Your task to perform on an android device: Open calendar and show me the second week of next month Image 0: 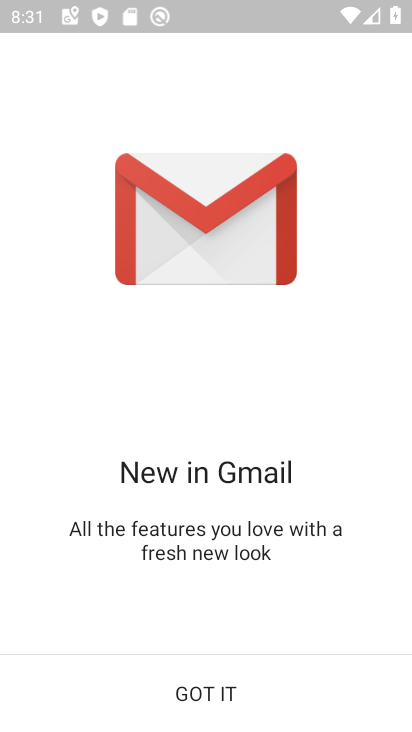
Step 0: press home button
Your task to perform on an android device: Open calendar and show me the second week of next month Image 1: 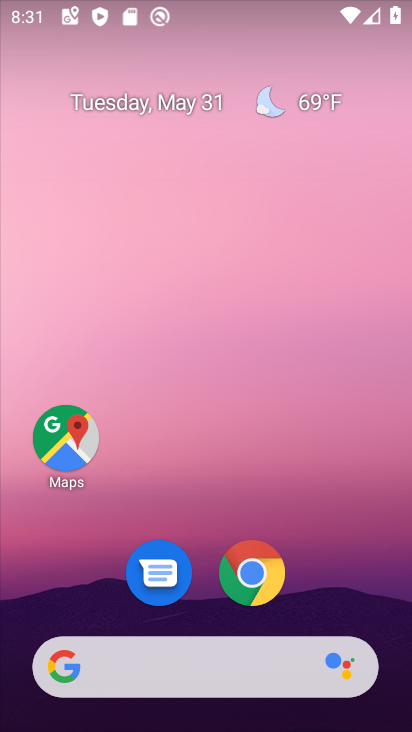
Step 1: drag from (195, 567) to (233, 88)
Your task to perform on an android device: Open calendar and show me the second week of next month Image 2: 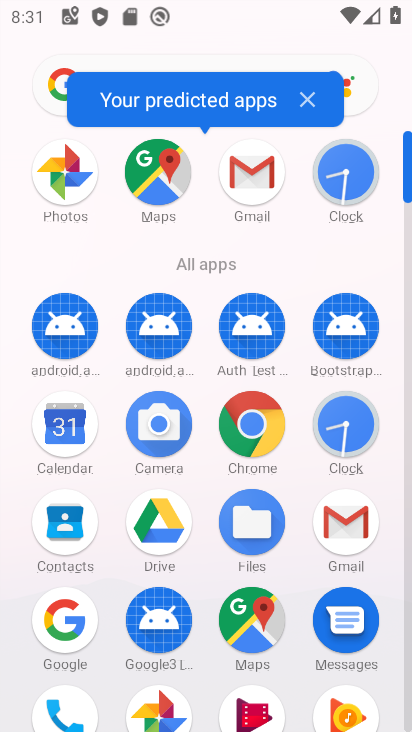
Step 2: click (65, 434)
Your task to perform on an android device: Open calendar and show me the second week of next month Image 3: 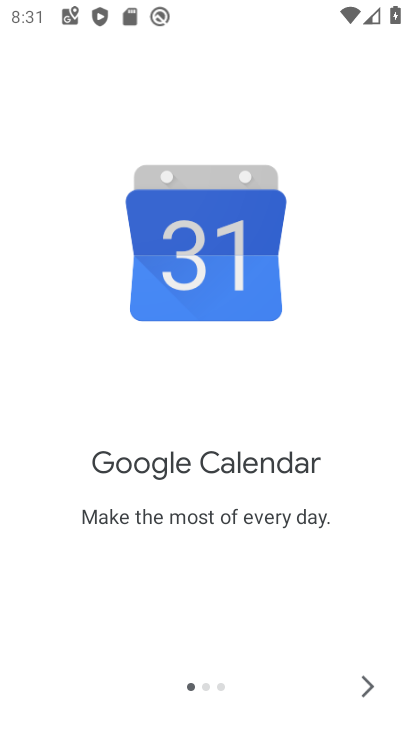
Step 3: click (373, 683)
Your task to perform on an android device: Open calendar and show me the second week of next month Image 4: 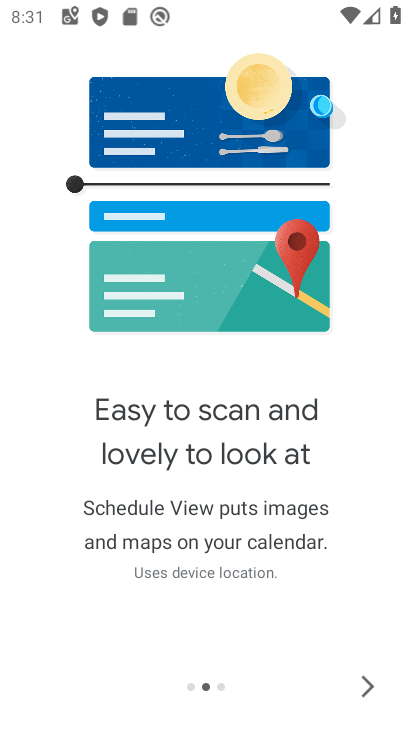
Step 4: click (373, 683)
Your task to perform on an android device: Open calendar and show me the second week of next month Image 5: 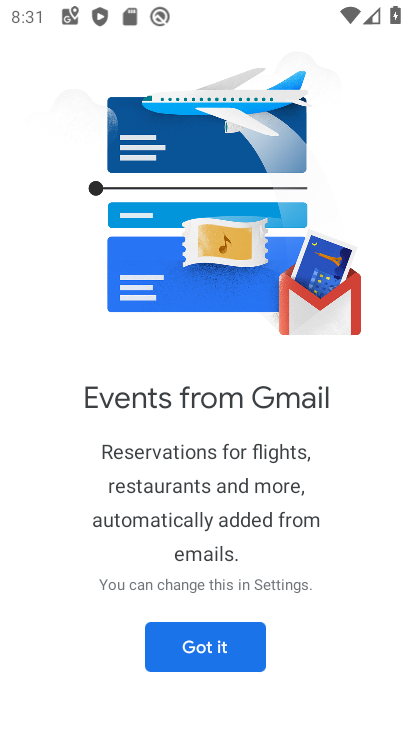
Step 5: click (232, 644)
Your task to perform on an android device: Open calendar and show me the second week of next month Image 6: 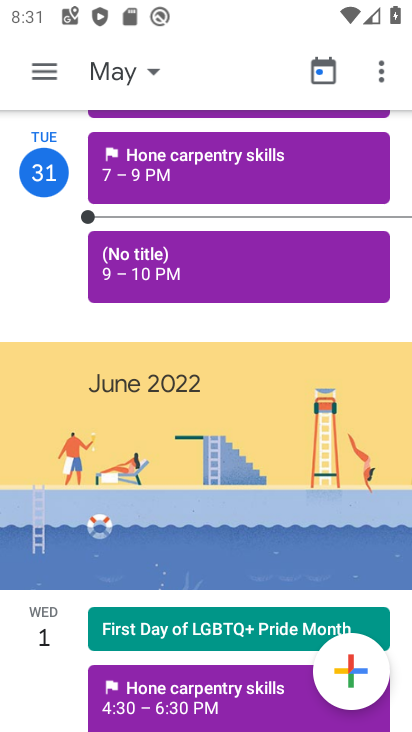
Step 6: click (48, 63)
Your task to perform on an android device: Open calendar and show me the second week of next month Image 7: 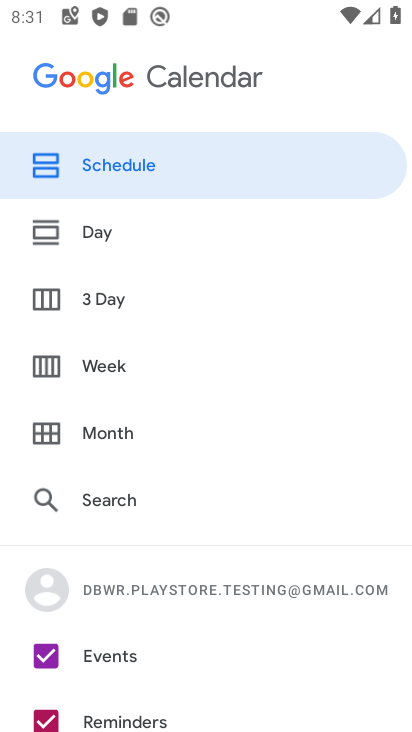
Step 7: click (127, 365)
Your task to perform on an android device: Open calendar and show me the second week of next month Image 8: 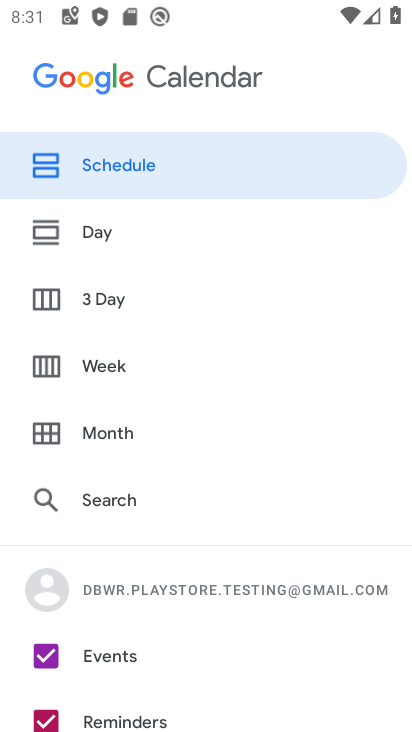
Step 8: click (127, 365)
Your task to perform on an android device: Open calendar and show me the second week of next month Image 9: 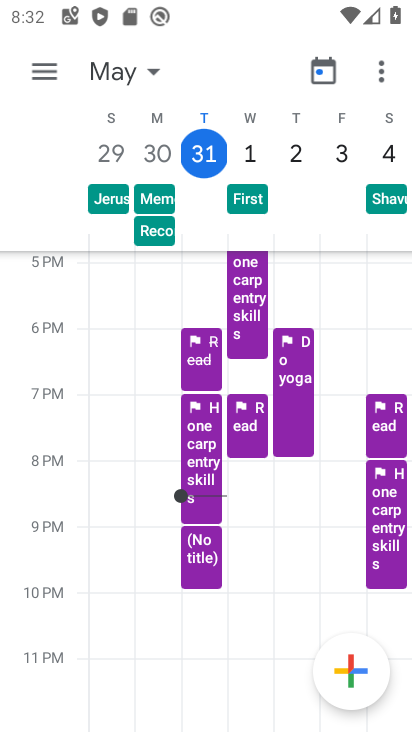
Step 9: task complete